Your task to perform on an android device: Go to privacy settings Image 0: 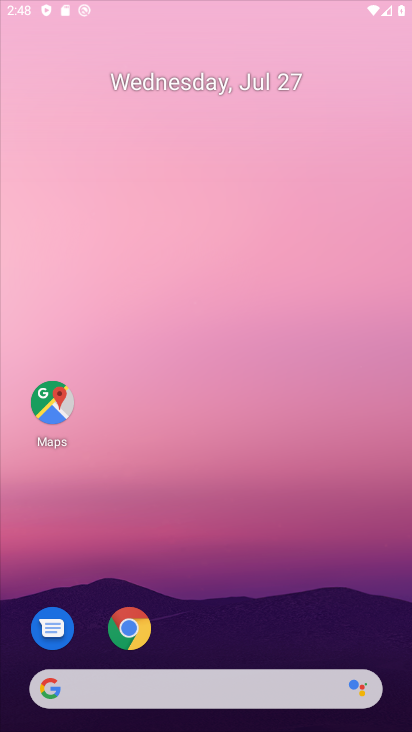
Step 0: drag from (253, 531) to (161, 217)
Your task to perform on an android device: Go to privacy settings Image 1: 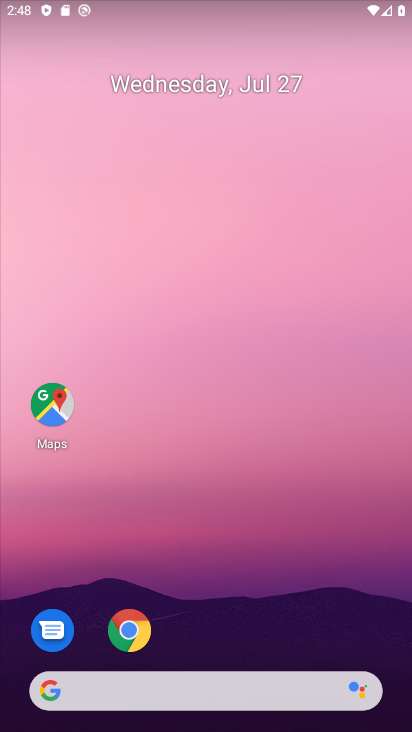
Step 1: drag from (211, 401) to (187, 102)
Your task to perform on an android device: Go to privacy settings Image 2: 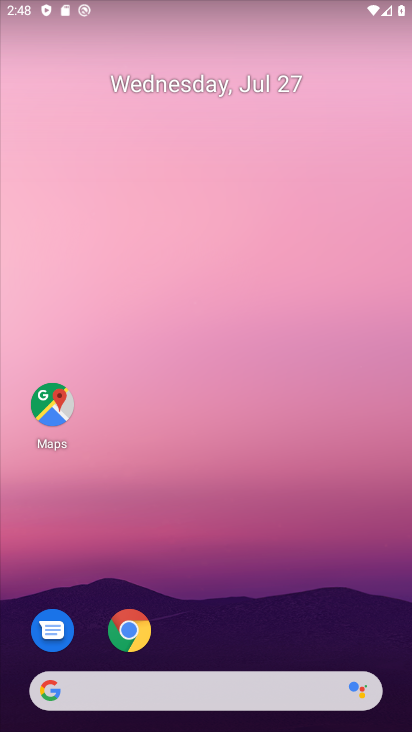
Step 2: drag from (245, 531) to (178, 192)
Your task to perform on an android device: Go to privacy settings Image 3: 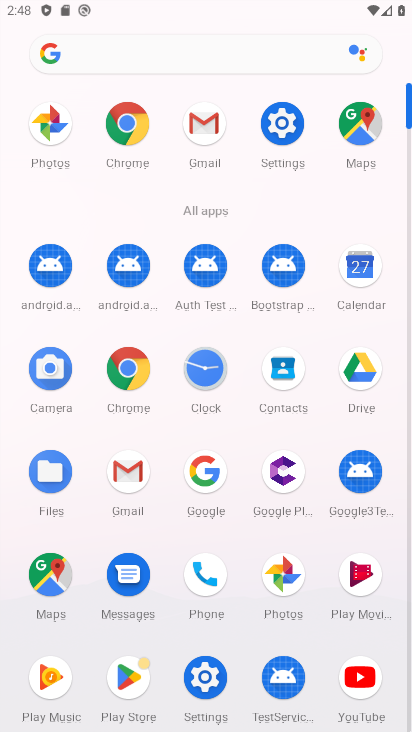
Step 3: click (288, 127)
Your task to perform on an android device: Go to privacy settings Image 4: 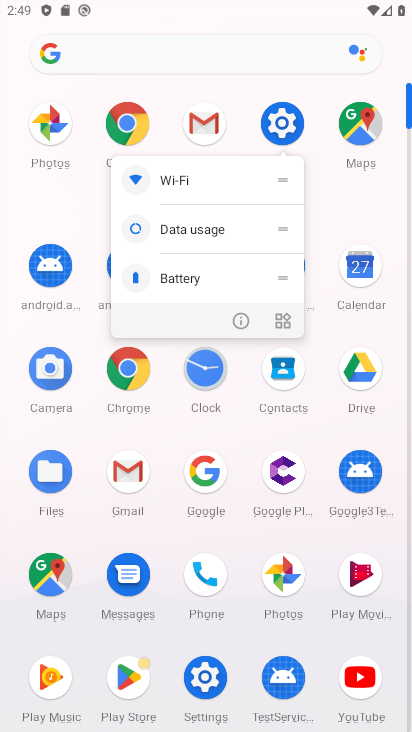
Step 4: click (270, 131)
Your task to perform on an android device: Go to privacy settings Image 5: 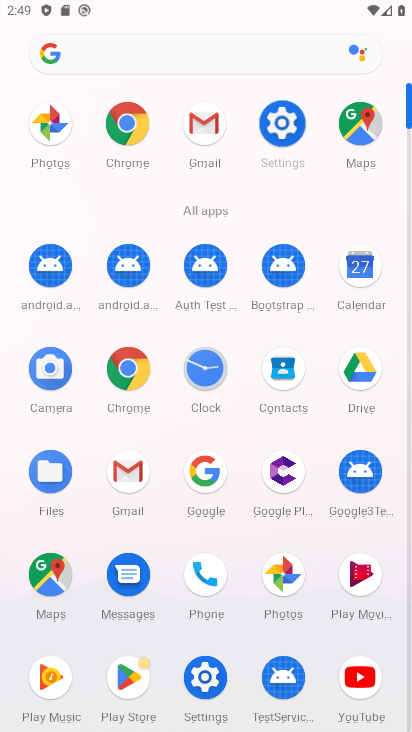
Step 5: click (270, 131)
Your task to perform on an android device: Go to privacy settings Image 6: 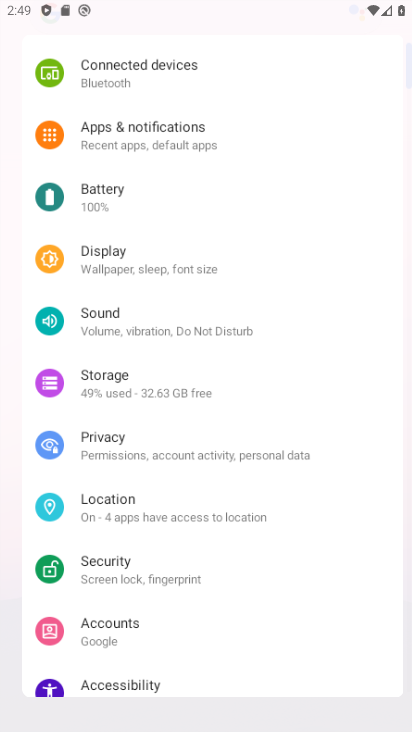
Step 6: click (270, 131)
Your task to perform on an android device: Go to privacy settings Image 7: 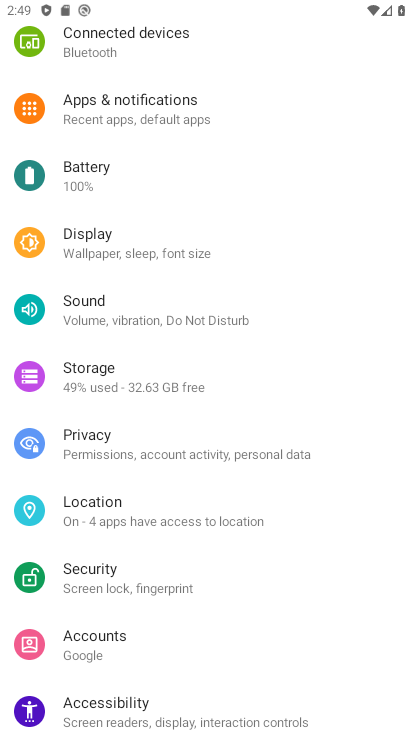
Step 7: click (270, 132)
Your task to perform on an android device: Go to privacy settings Image 8: 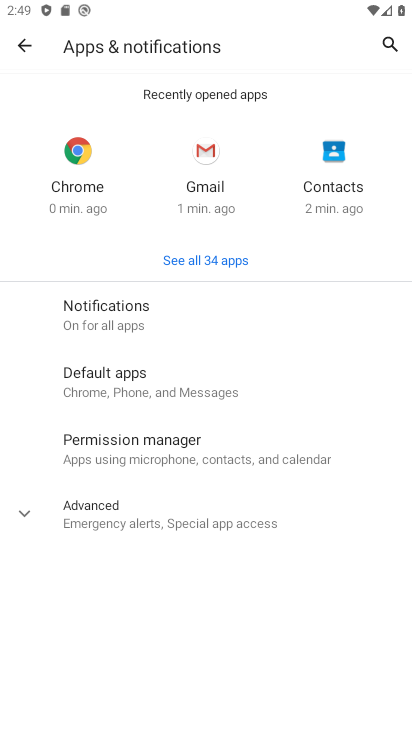
Step 8: click (24, 31)
Your task to perform on an android device: Go to privacy settings Image 9: 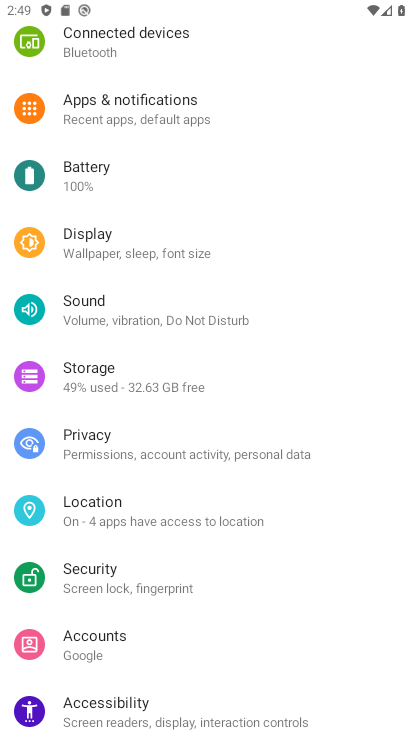
Step 9: click (91, 464)
Your task to perform on an android device: Go to privacy settings Image 10: 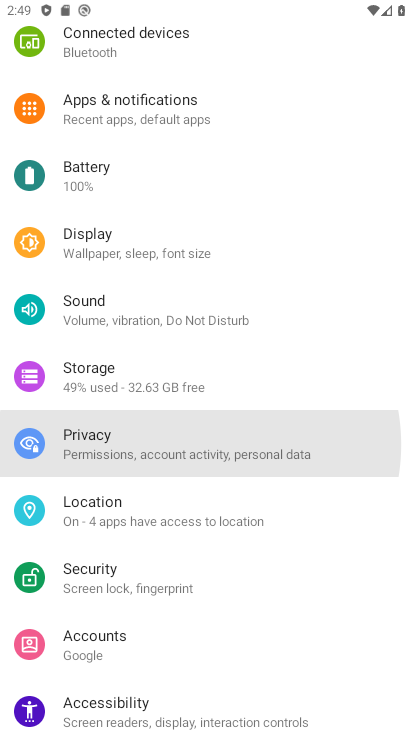
Step 10: click (91, 461)
Your task to perform on an android device: Go to privacy settings Image 11: 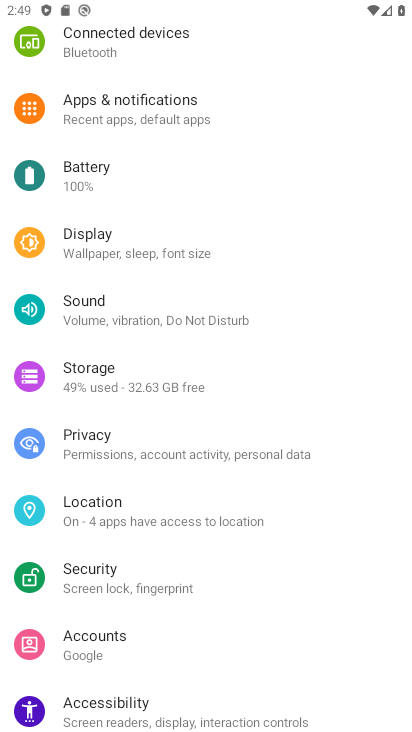
Step 11: click (91, 444)
Your task to perform on an android device: Go to privacy settings Image 12: 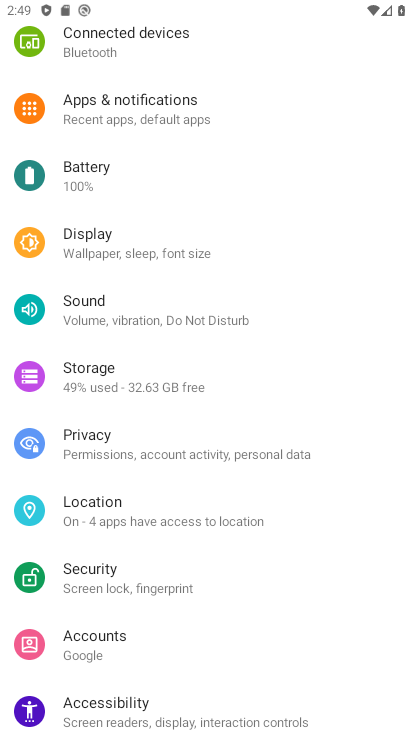
Step 12: click (93, 437)
Your task to perform on an android device: Go to privacy settings Image 13: 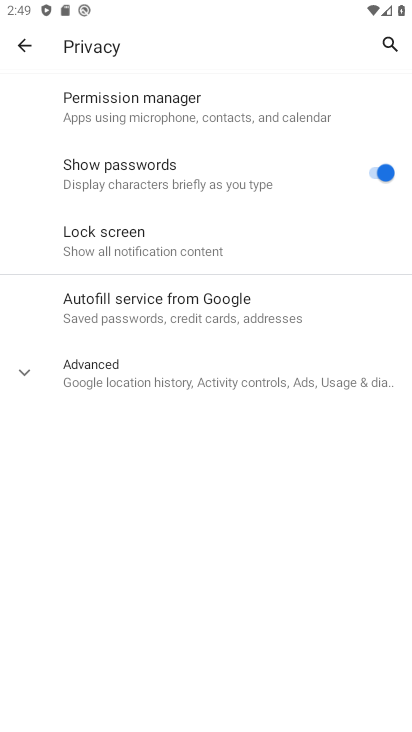
Step 13: task complete